Your task to perform on an android device: When is my next appointment? Image 0: 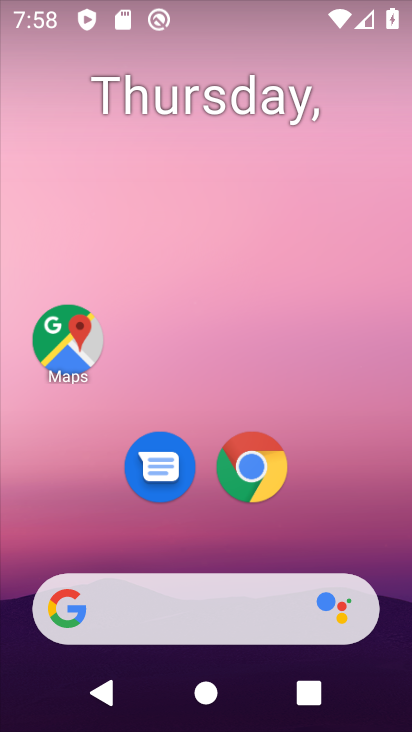
Step 0: drag from (218, 512) to (282, 132)
Your task to perform on an android device: When is my next appointment? Image 1: 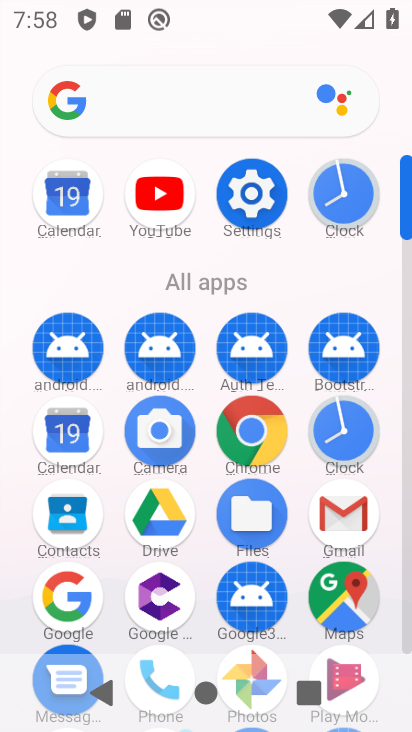
Step 1: click (60, 428)
Your task to perform on an android device: When is my next appointment? Image 2: 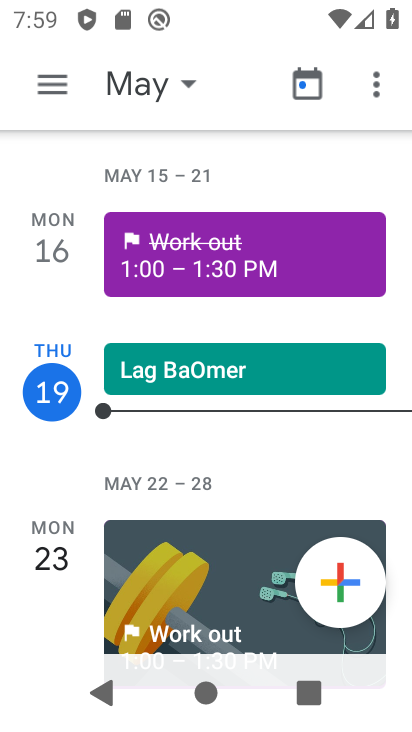
Step 2: task complete